Your task to perform on an android device: open a new tab in the chrome app Image 0: 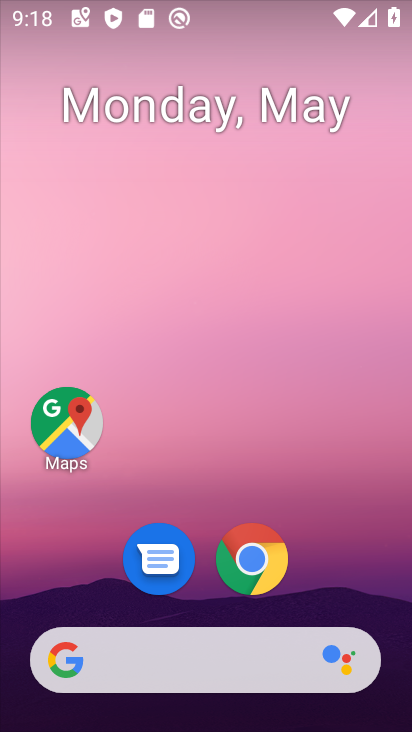
Step 0: click (256, 564)
Your task to perform on an android device: open a new tab in the chrome app Image 1: 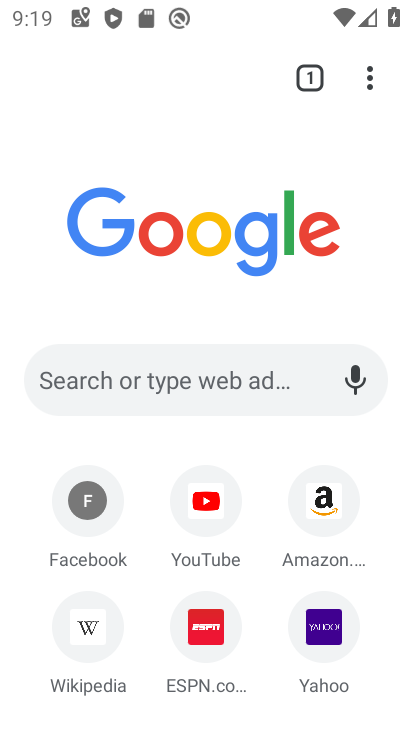
Step 1: click (370, 76)
Your task to perform on an android device: open a new tab in the chrome app Image 2: 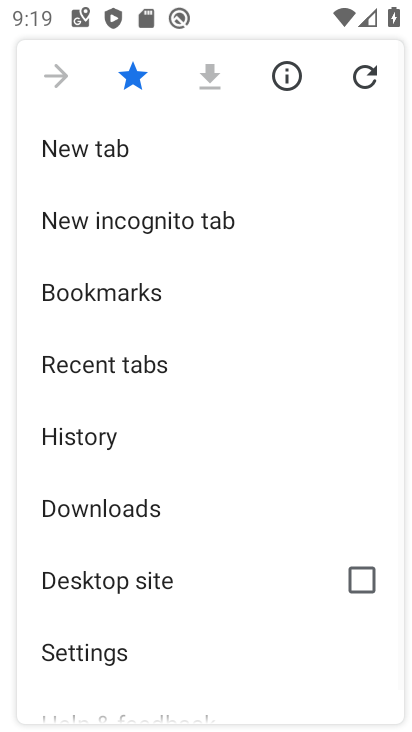
Step 2: click (88, 154)
Your task to perform on an android device: open a new tab in the chrome app Image 3: 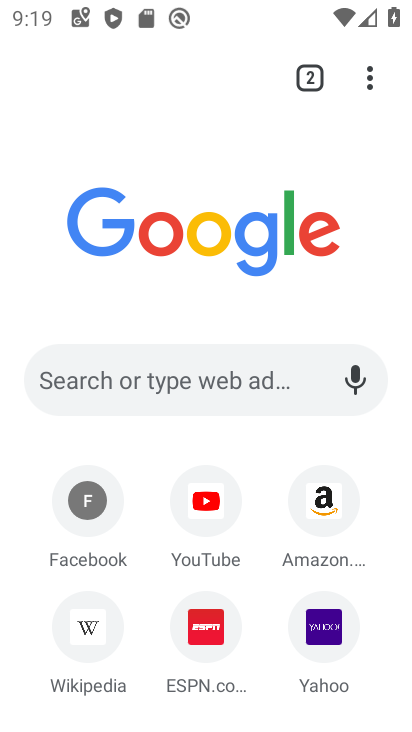
Step 3: task complete